Your task to perform on an android device: toggle sleep mode Image 0: 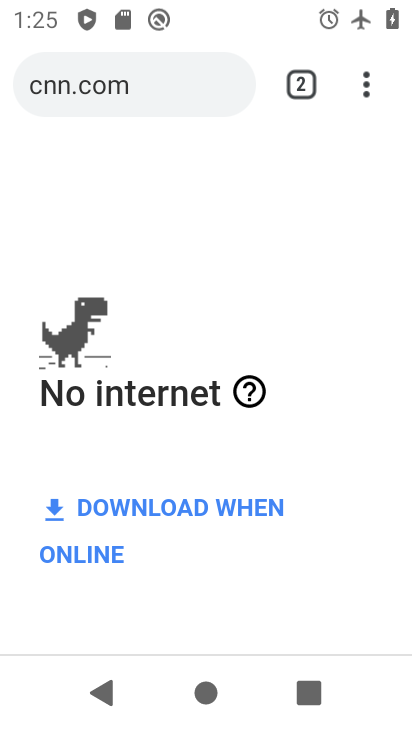
Step 0: press home button
Your task to perform on an android device: toggle sleep mode Image 1: 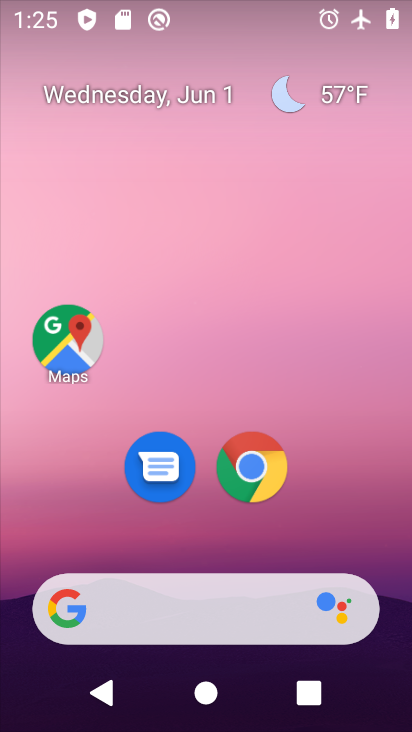
Step 1: drag from (368, 489) to (367, 149)
Your task to perform on an android device: toggle sleep mode Image 2: 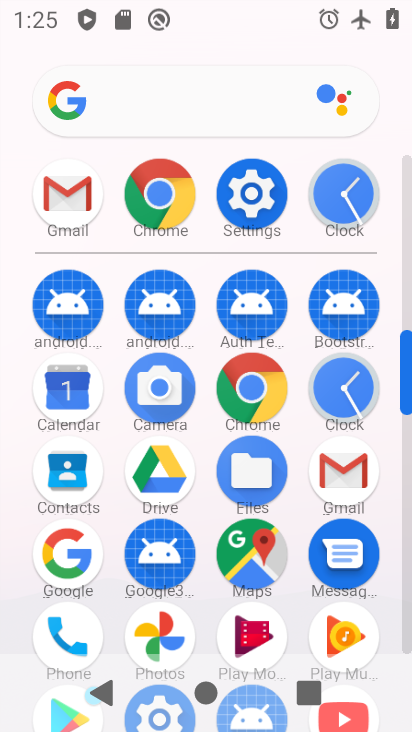
Step 2: click (257, 235)
Your task to perform on an android device: toggle sleep mode Image 3: 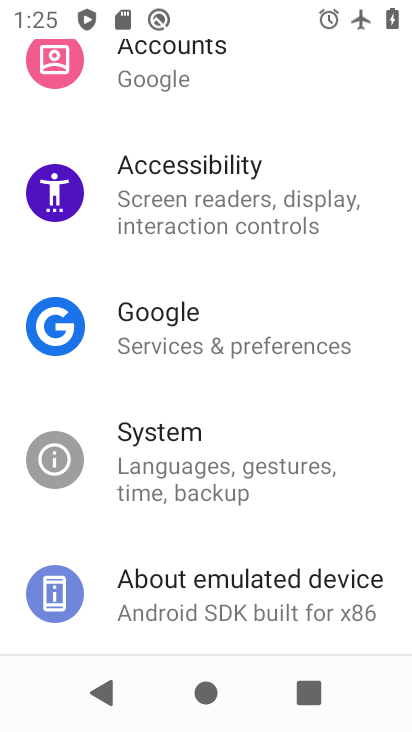
Step 3: drag from (341, 498) to (364, 301)
Your task to perform on an android device: toggle sleep mode Image 4: 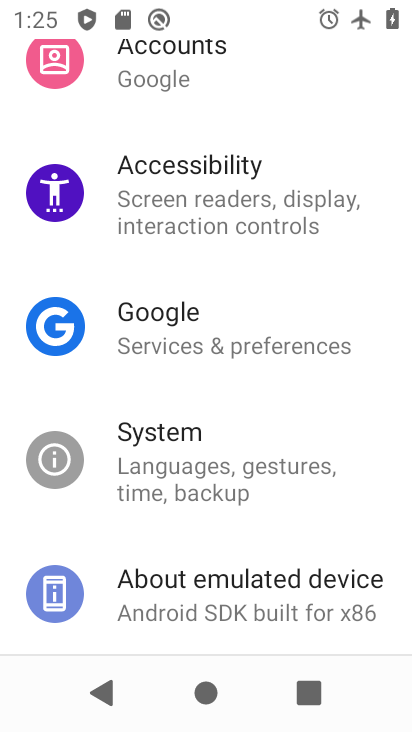
Step 4: drag from (338, 485) to (371, 323)
Your task to perform on an android device: toggle sleep mode Image 5: 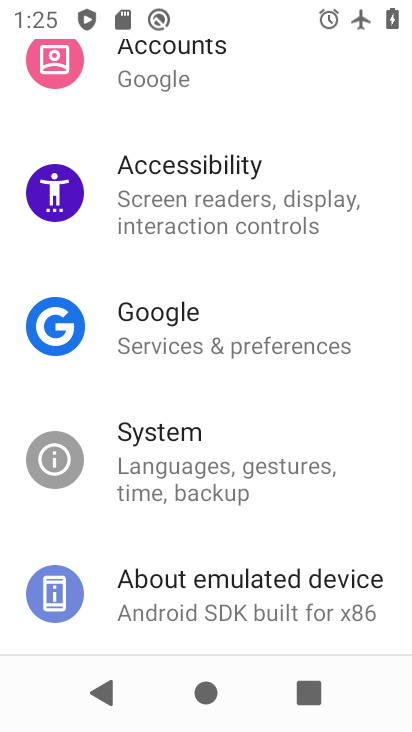
Step 5: drag from (363, 294) to (365, 415)
Your task to perform on an android device: toggle sleep mode Image 6: 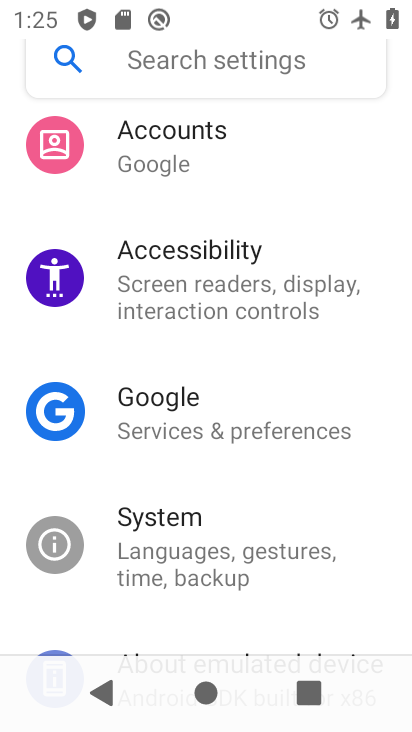
Step 6: drag from (361, 293) to (361, 428)
Your task to perform on an android device: toggle sleep mode Image 7: 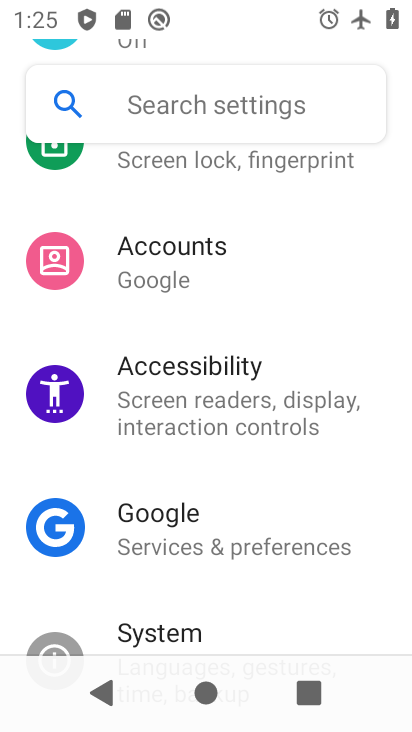
Step 7: drag from (356, 270) to (356, 391)
Your task to perform on an android device: toggle sleep mode Image 8: 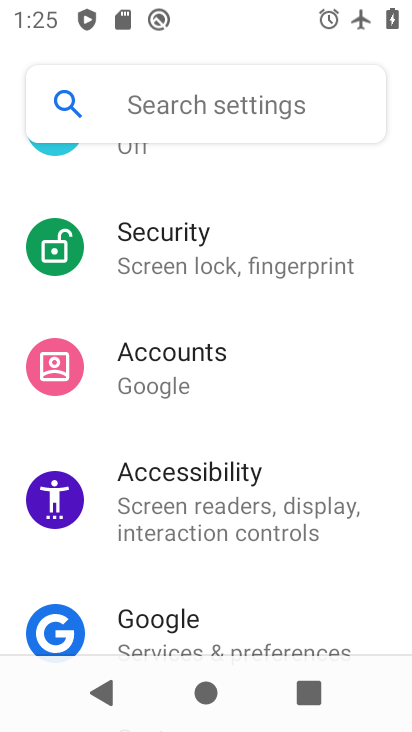
Step 8: drag from (362, 216) to (363, 360)
Your task to perform on an android device: toggle sleep mode Image 9: 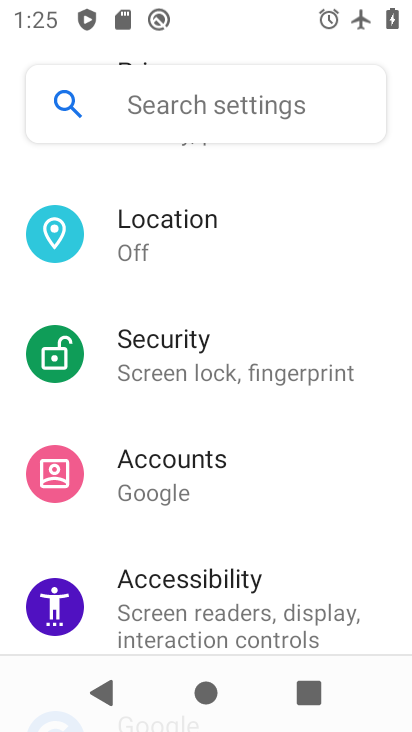
Step 9: drag from (361, 224) to (357, 368)
Your task to perform on an android device: toggle sleep mode Image 10: 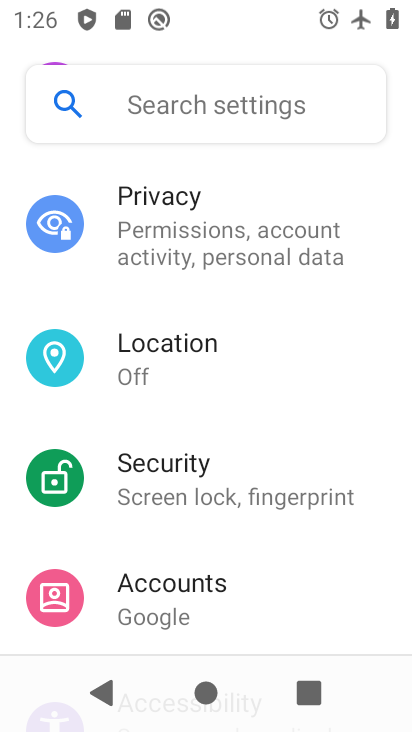
Step 10: drag from (364, 227) to (364, 363)
Your task to perform on an android device: toggle sleep mode Image 11: 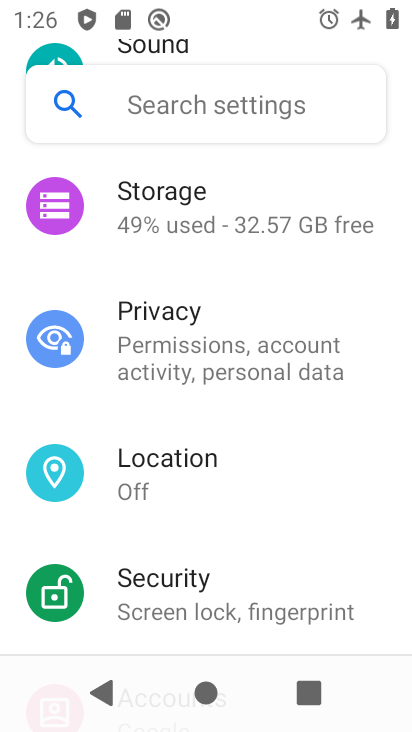
Step 11: drag from (362, 196) to (366, 364)
Your task to perform on an android device: toggle sleep mode Image 12: 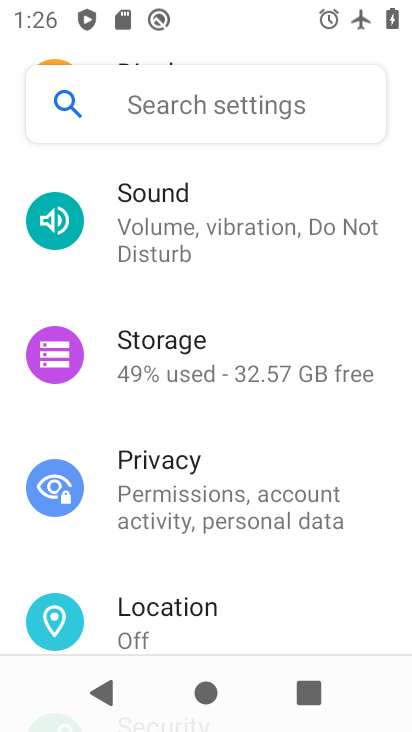
Step 12: drag from (364, 189) to (356, 424)
Your task to perform on an android device: toggle sleep mode Image 13: 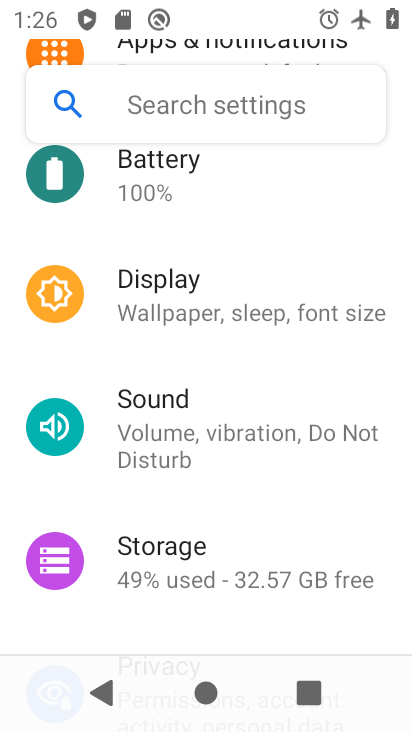
Step 13: click (261, 307)
Your task to perform on an android device: toggle sleep mode Image 14: 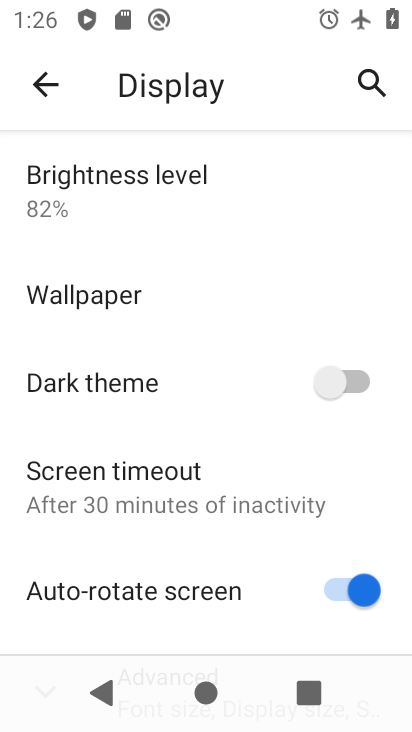
Step 14: task complete